Your task to perform on an android device: show emergency info Image 0: 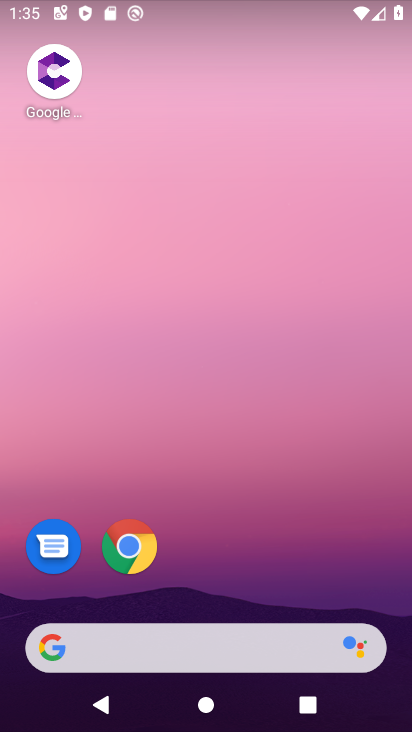
Step 0: drag from (252, 605) to (288, 168)
Your task to perform on an android device: show emergency info Image 1: 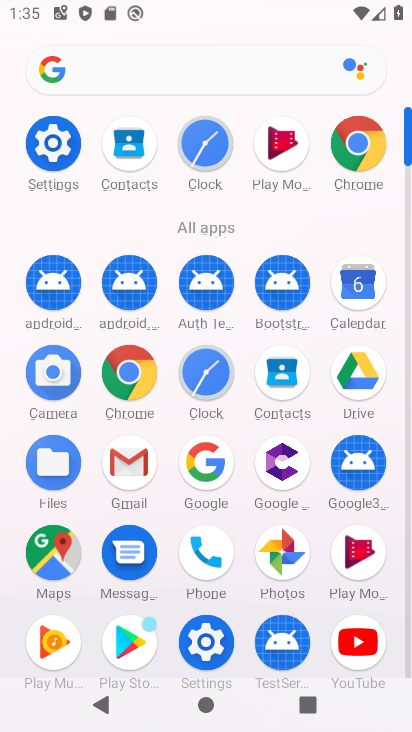
Step 1: click (56, 163)
Your task to perform on an android device: show emergency info Image 2: 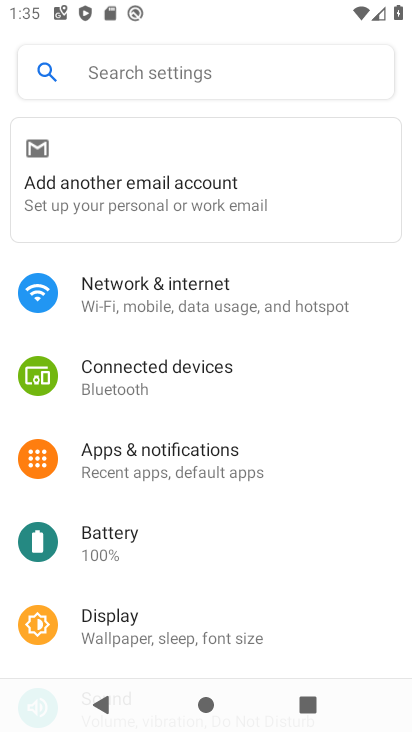
Step 2: drag from (157, 633) to (267, 141)
Your task to perform on an android device: show emergency info Image 3: 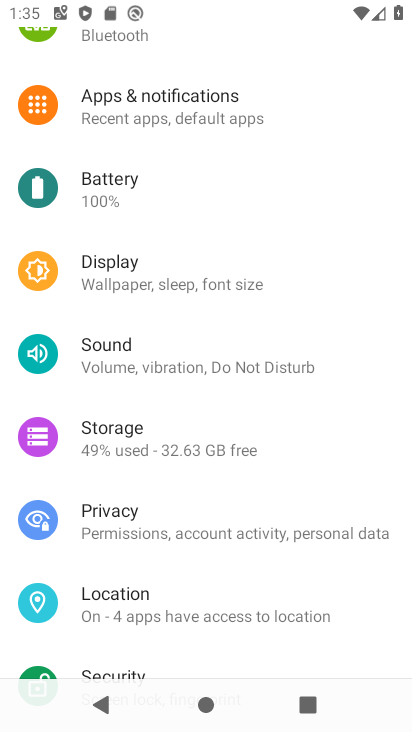
Step 3: drag from (292, 615) to (320, 291)
Your task to perform on an android device: show emergency info Image 4: 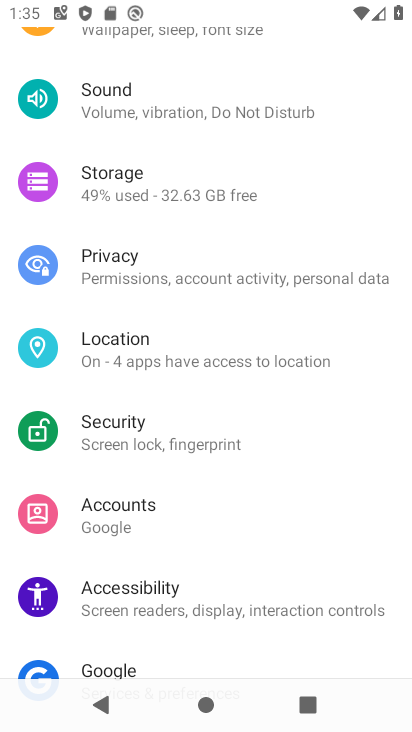
Step 4: drag from (279, 619) to (291, 245)
Your task to perform on an android device: show emergency info Image 5: 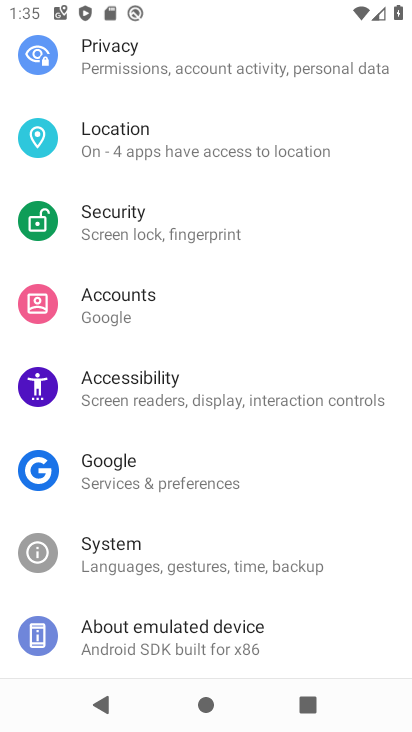
Step 5: click (218, 602)
Your task to perform on an android device: show emergency info Image 6: 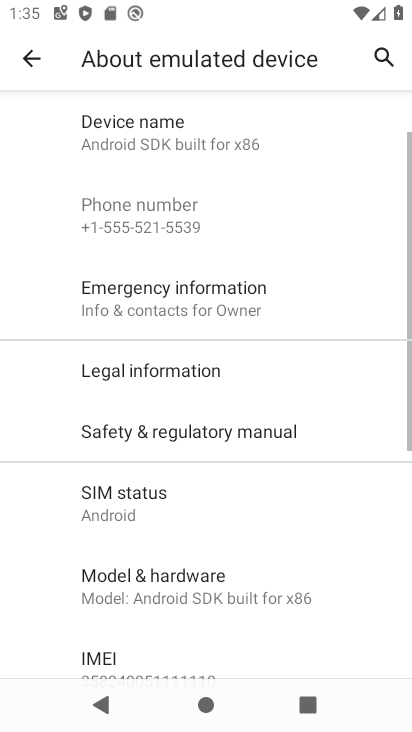
Step 6: click (224, 308)
Your task to perform on an android device: show emergency info Image 7: 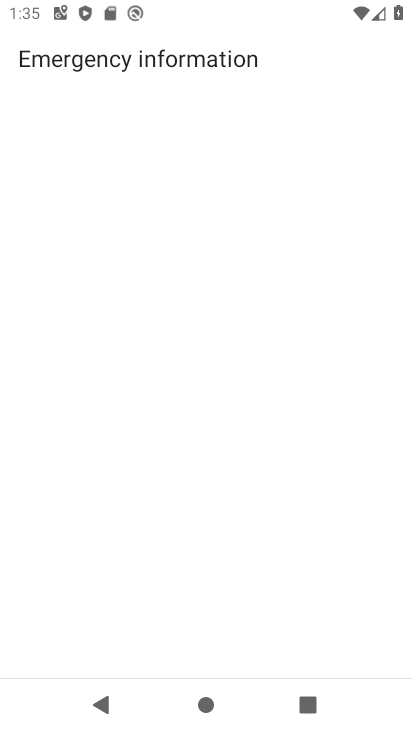
Step 7: task complete